Your task to perform on an android device: toggle improve location accuracy Image 0: 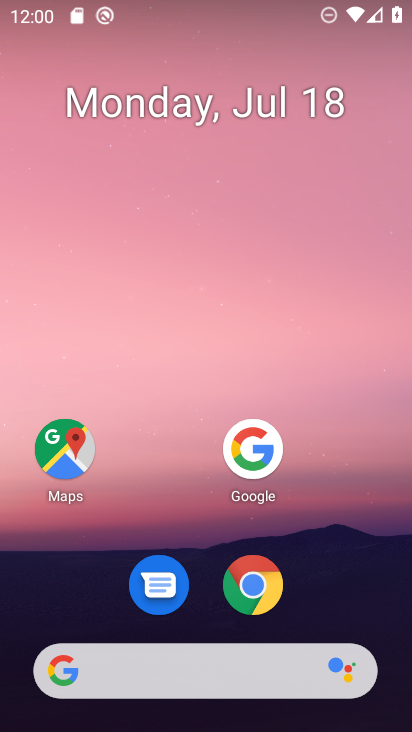
Step 0: press home button
Your task to perform on an android device: toggle improve location accuracy Image 1: 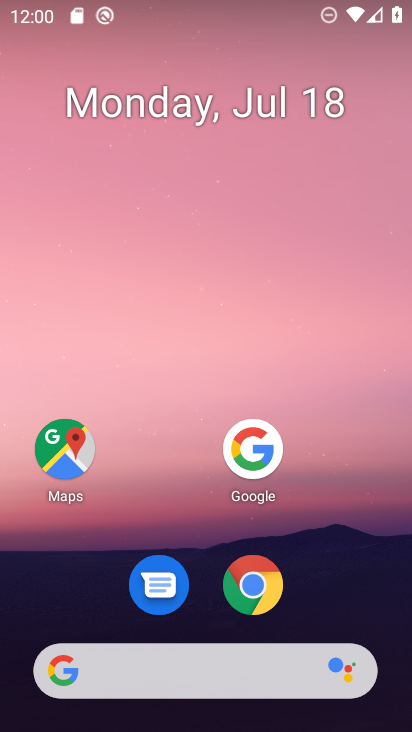
Step 1: drag from (153, 684) to (321, 80)
Your task to perform on an android device: toggle improve location accuracy Image 2: 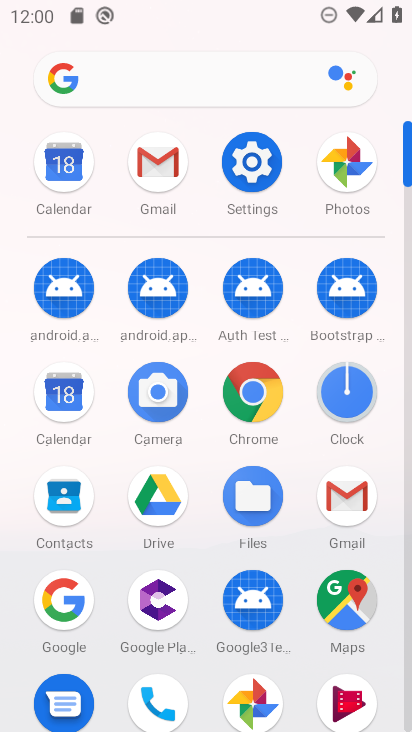
Step 2: drag from (186, 601) to (220, 341)
Your task to perform on an android device: toggle improve location accuracy Image 3: 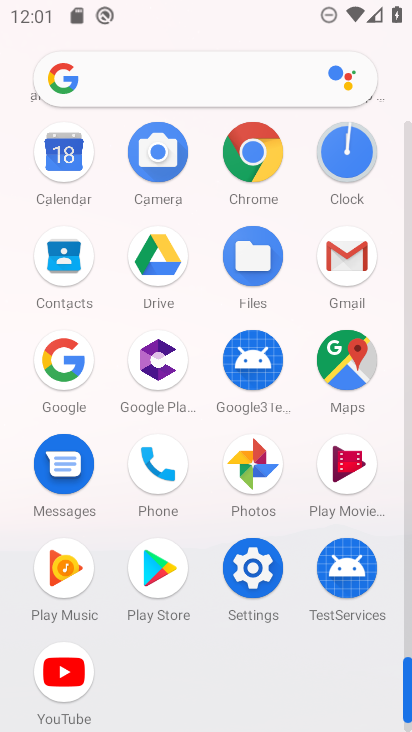
Step 3: click (256, 564)
Your task to perform on an android device: toggle improve location accuracy Image 4: 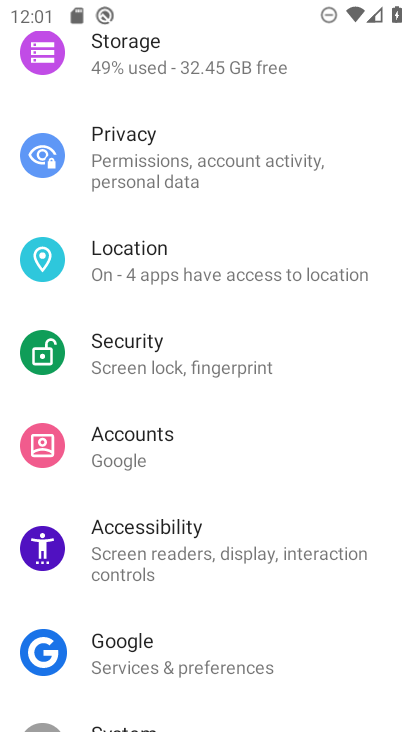
Step 4: click (184, 274)
Your task to perform on an android device: toggle improve location accuracy Image 5: 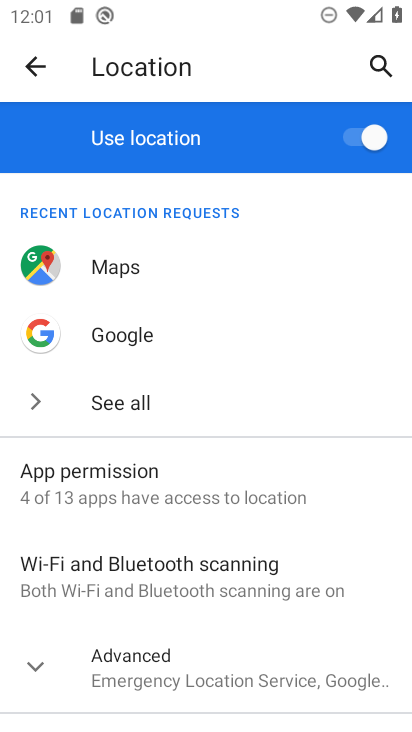
Step 5: click (198, 667)
Your task to perform on an android device: toggle improve location accuracy Image 6: 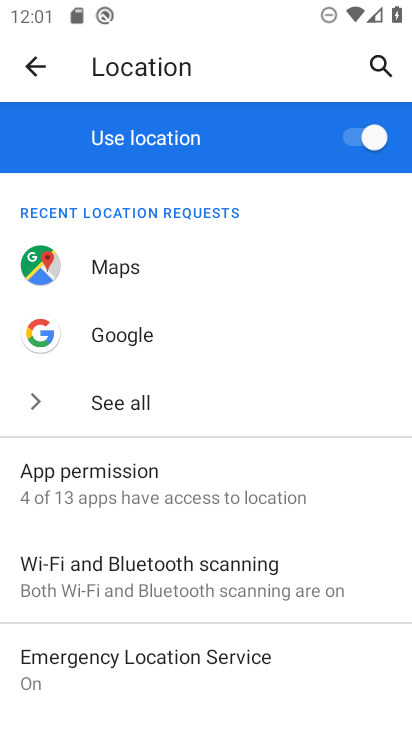
Step 6: drag from (204, 651) to (307, 224)
Your task to perform on an android device: toggle improve location accuracy Image 7: 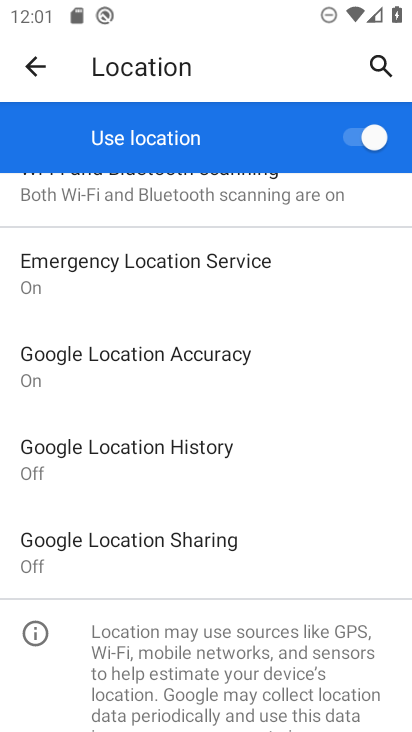
Step 7: click (177, 364)
Your task to perform on an android device: toggle improve location accuracy Image 8: 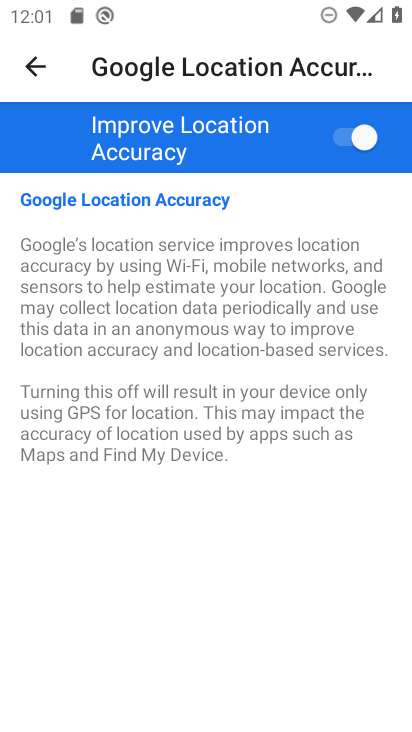
Step 8: click (341, 148)
Your task to perform on an android device: toggle improve location accuracy Image 9: 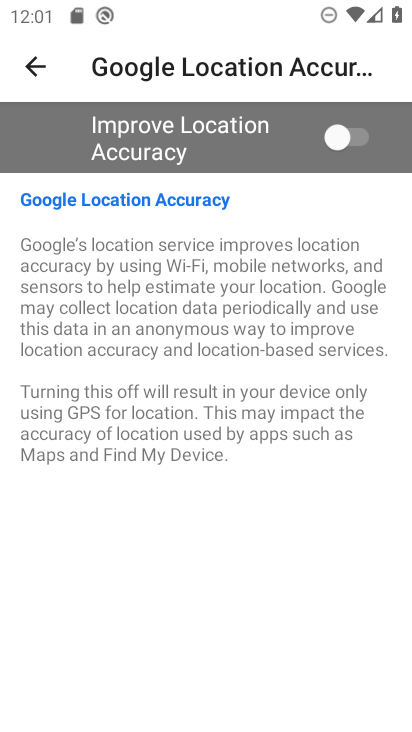
Step 9: task complete